Your task to perform on an android device: What's the weather going to be this weekend? Image 0: 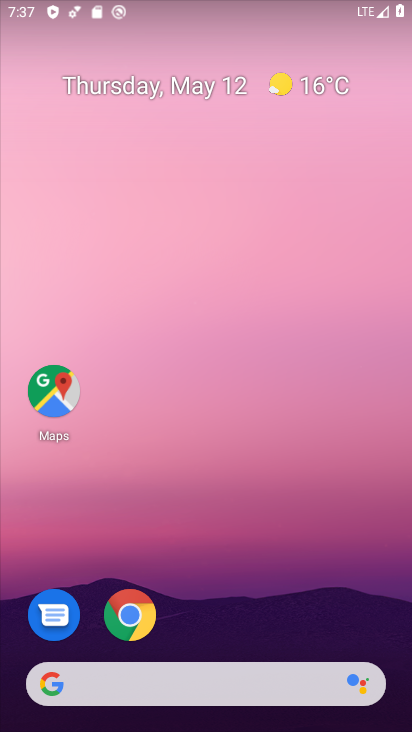
Step 0: click (303, 84)
Your task to perform on an android device: What's the weather going to be this weekend? Image 1: 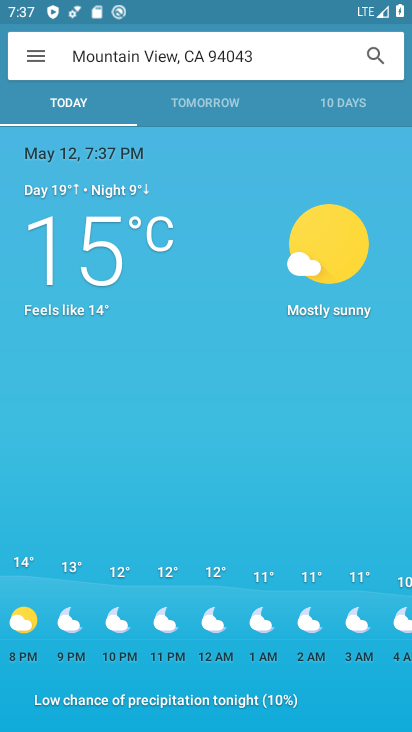
Step 1: click (338, 98)
Your task to perform on an android device: What's the weather going to be this weekend? Image 2: 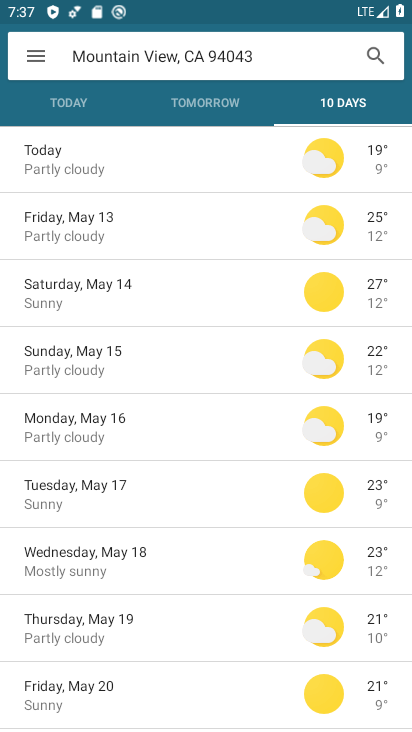
Step 2: click (145, 281)
Your task to perform on an android device: What's the weather going to be this weekend? Image 3: 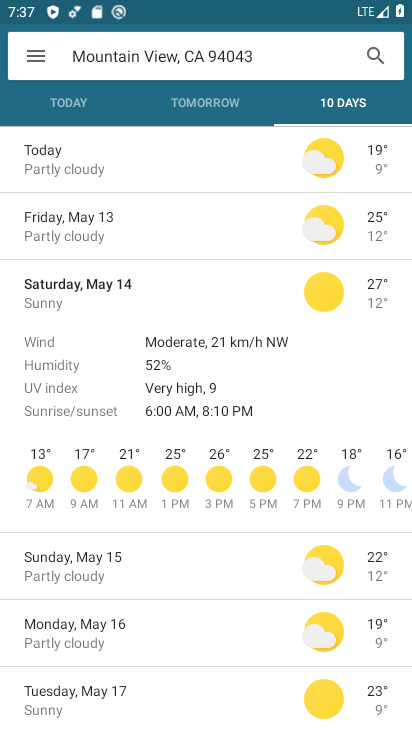
Step 3: click (82, 561)
Your task to perform on an android device: What's the weather going to be this weekend? Image 4: 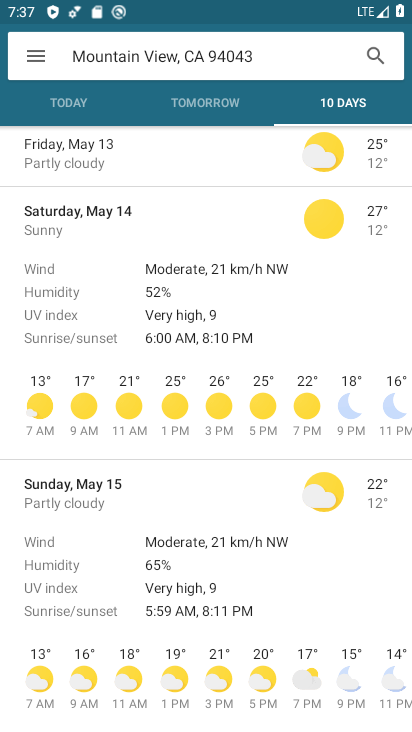
Step 4: task complete